Your task to perform on an android device: Open Chrome and go to the settings page Image 0: 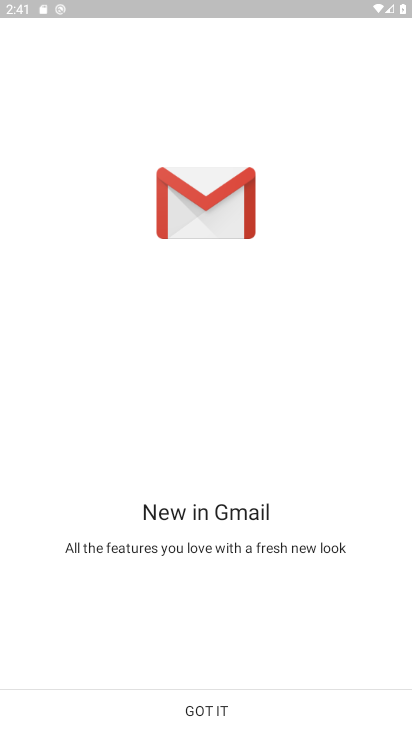
Step 0: press home button
Your task to perform on an android device: Open Chrome and go to the settings page Image 1: 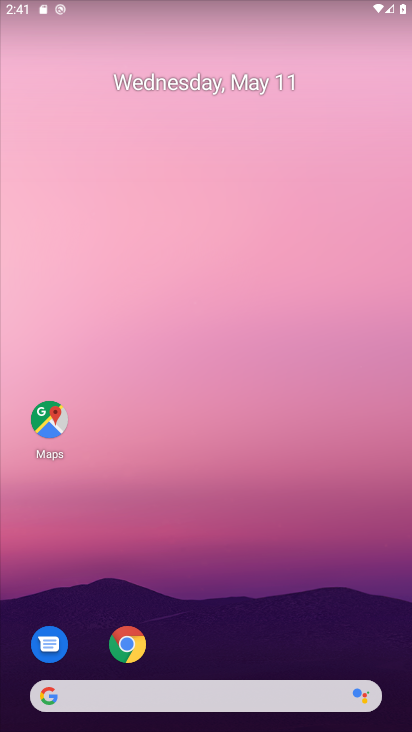
Step 1: click (134, 640)
Your task to perform on an android device: Open Chrome and go to the settings page Image 2: 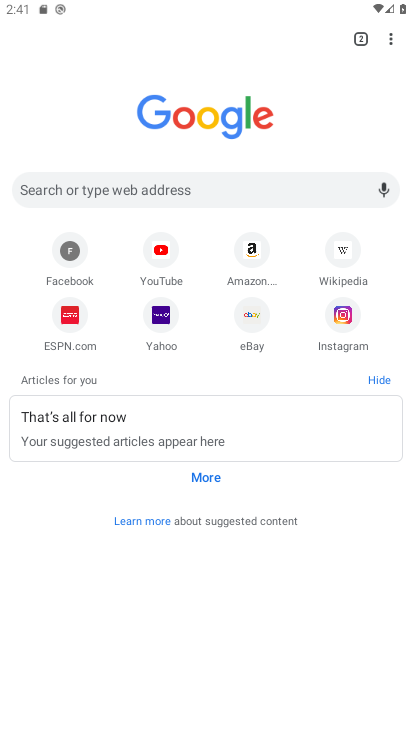
Step 2: task complete